Your task to perform on an android device: Open eBay Image 0: 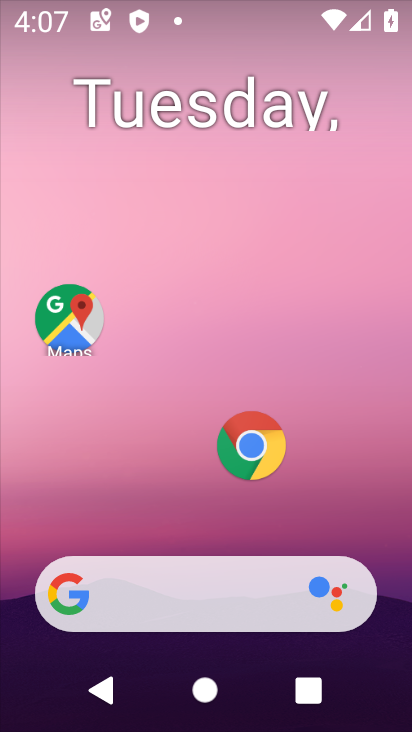
Step 0: click (266, 439)
Your task to perform on an android device: Open eBay Image 1: 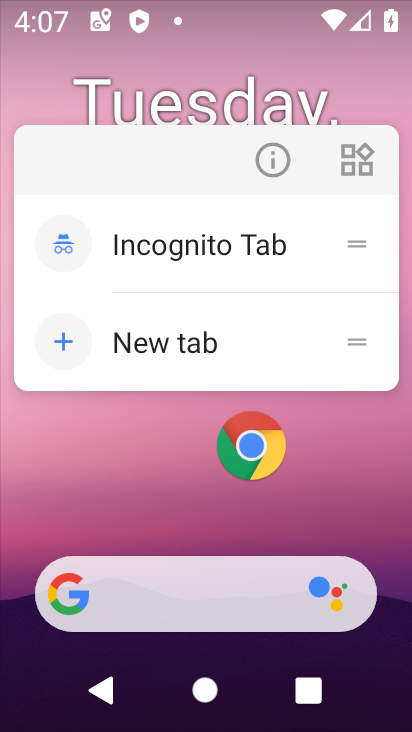
Step 1: click (267, 439)
Your task to perform on an android device: Open eBay Image 2: 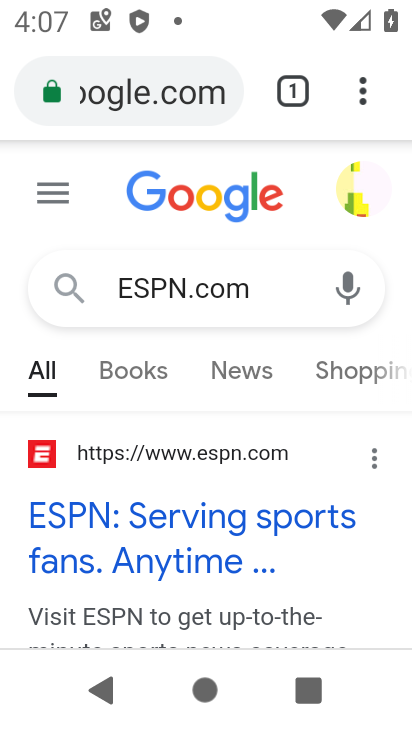
Step 2: click (137, 93)
Your task to perform on an android device: Open eBay Image 3: 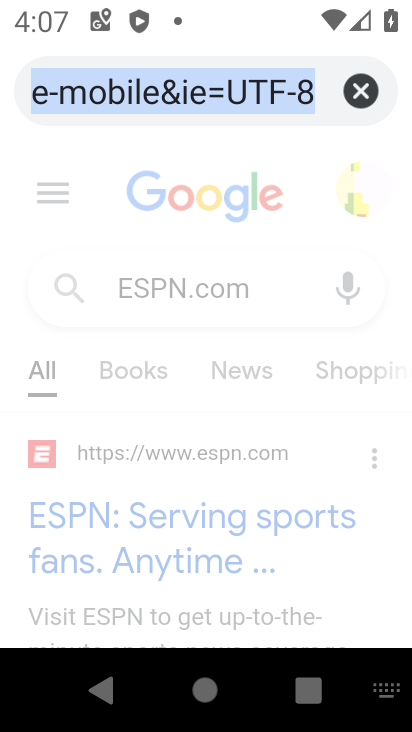
Step 3: type "eBay"
Your task to perform on an android device: Open eBay Image 4: 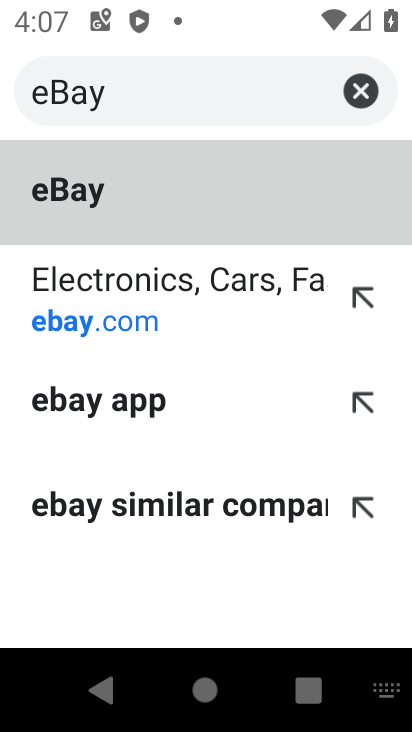
Step 4: click (130, 218)
Your task to perform on an android device: Open eBay Image 5: 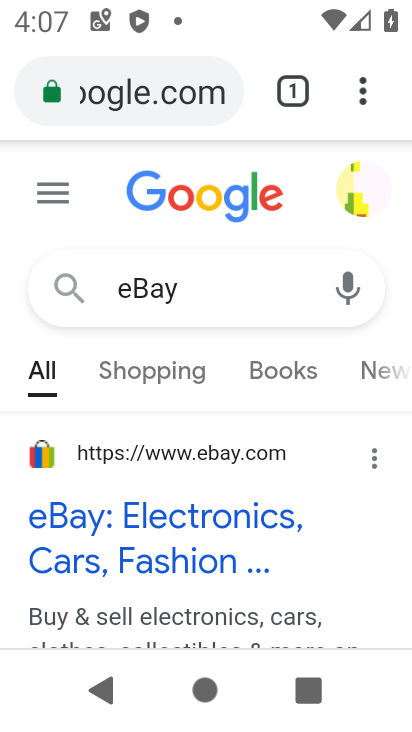
Step 5: task complete